Your task to perform on an android device: Go to ESPN.com Image 0: 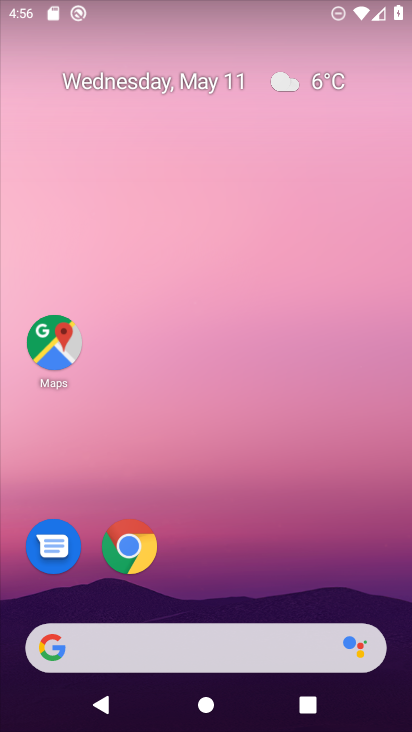
Step 0: click (131, 540)
Your task to perform on an android device: Go to ESPN.com Image 1: 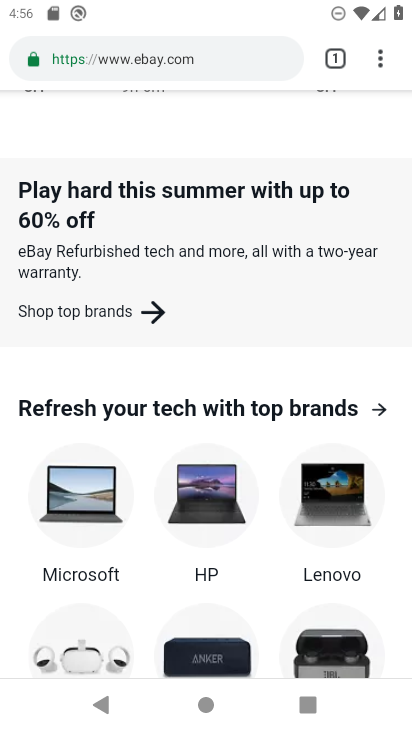
Step 1: click (339, 58)
Your task to perform on an android device: Go to ESPN.com Image 2: 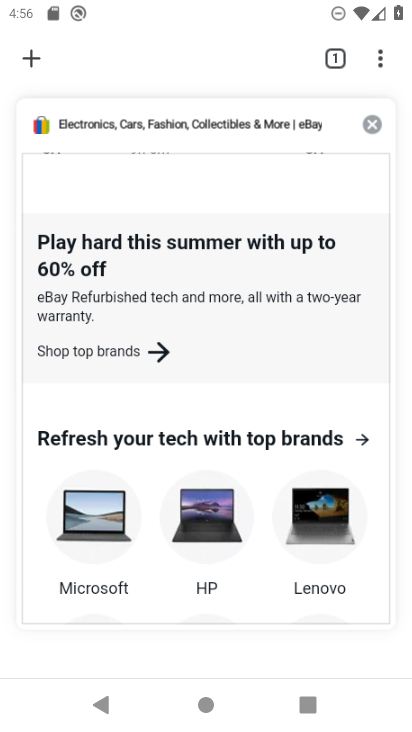
Step 2: click (376, 119)
Your task to perform on an android device: Go to ESPN.com Image 3: 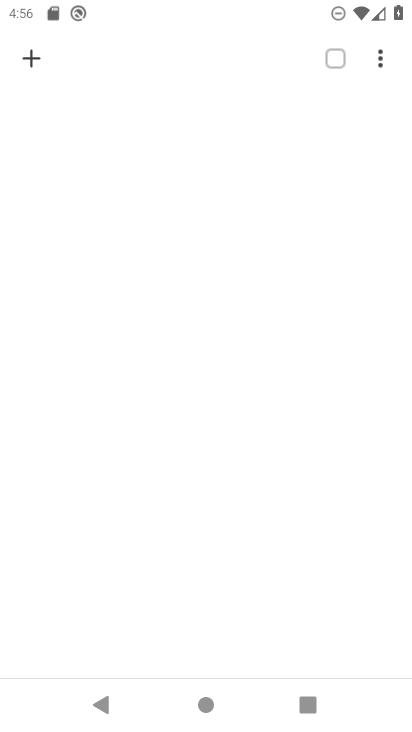
Step 3: click (36, 58)
Your task to perform on an android device: Go to ESPN.com Image 4: 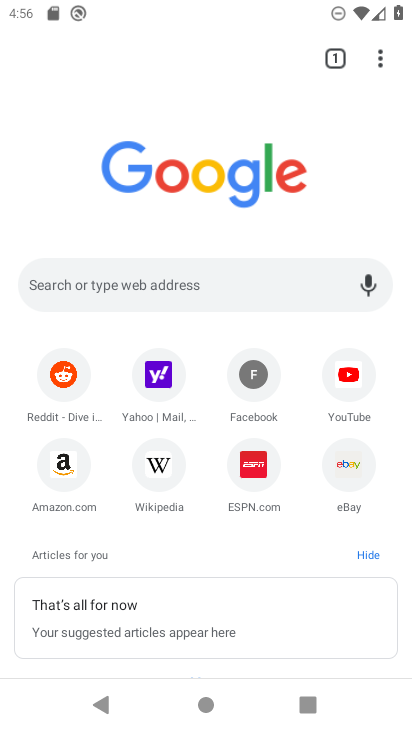
Step 4: click (236, 477)
Your task to perform on an android device: Go to ESPN.com Image 5: 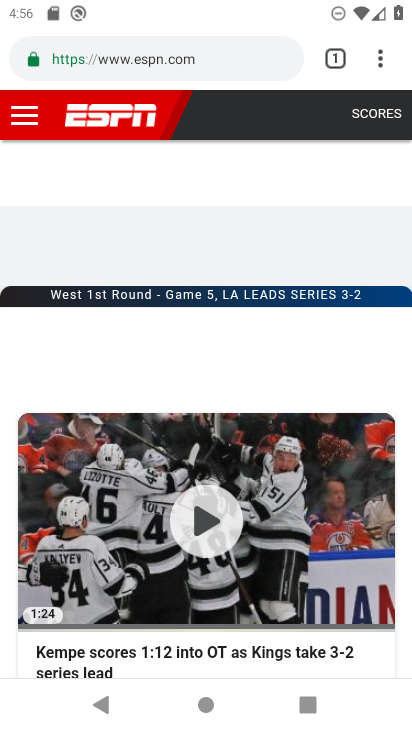
Step 5: task complete